Your task to perform on an android device: What's the weather going to be tomorrow? Image 0: 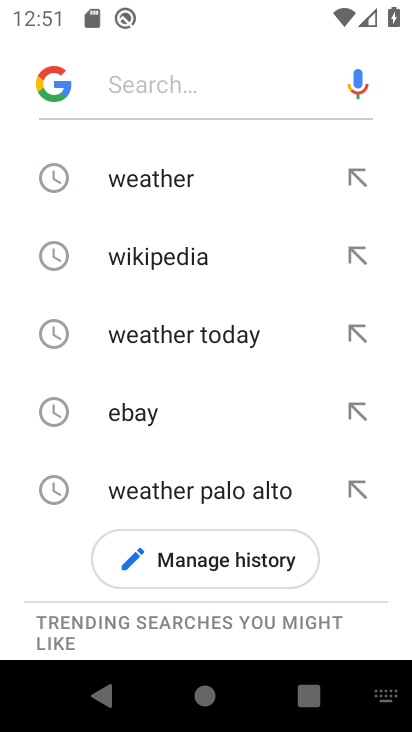
Step 0: press home button
Your task to perform on an android device: What's the weather going to be tomorrow? Image 1: 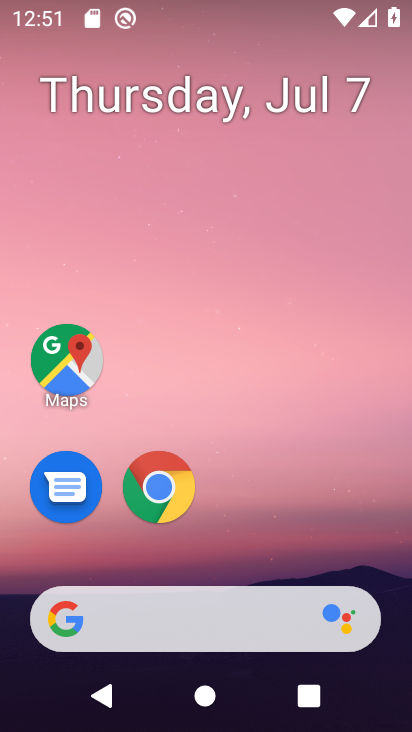
Step 1: click (244, 616)
Your task to perform on an android device: What's the weather going to be tomorrow? Image 2: 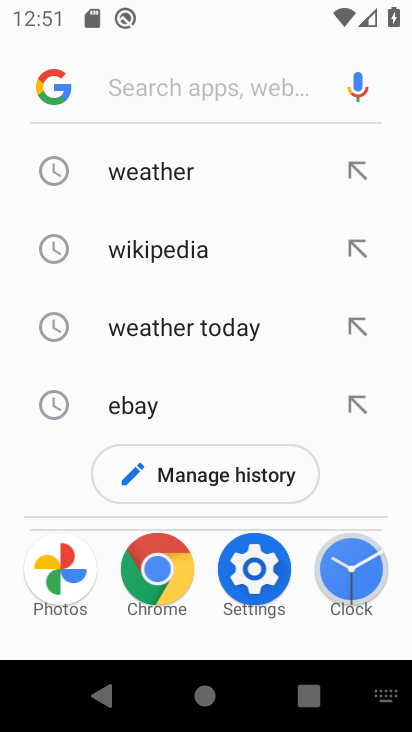
Step 2: click (180, 182)
Your task to perform on an android device: What's the weather going to be tomorrow? Image 3: 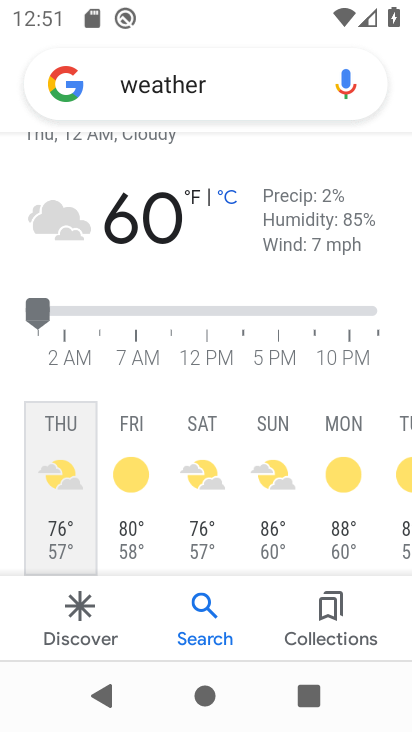
Step 3: click (139, 428)
Your task to perform on an android device: What's the weather going to be tomorrow? Image 4: 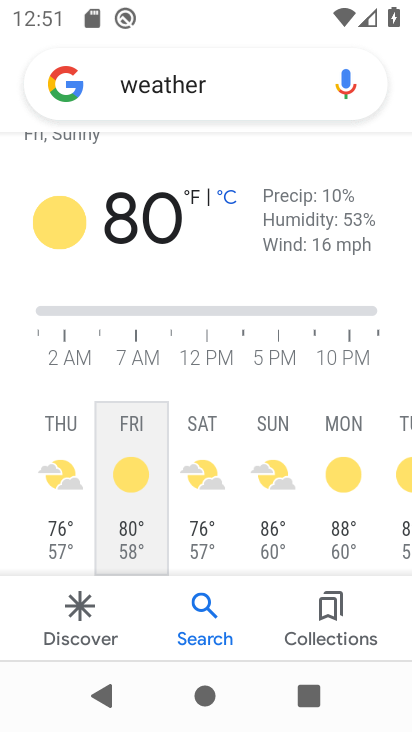
Step 4: task complete